Your task to perform on an android device: stop showing notifications on the lock screen Image 0: 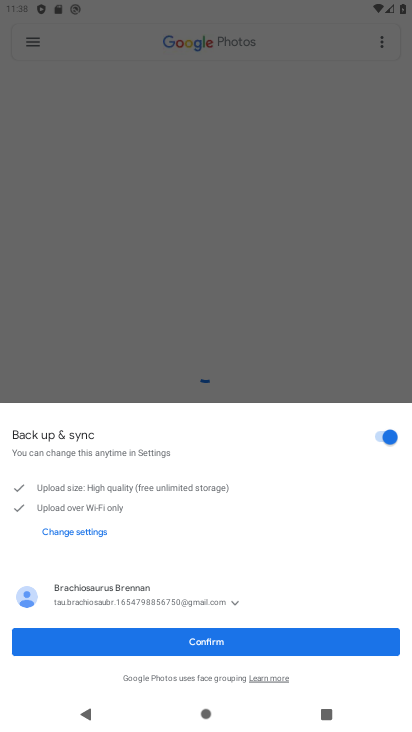
Step 0: press home button
Your task to perform on an android device: stop showing notifications on the lock screen Image 1: 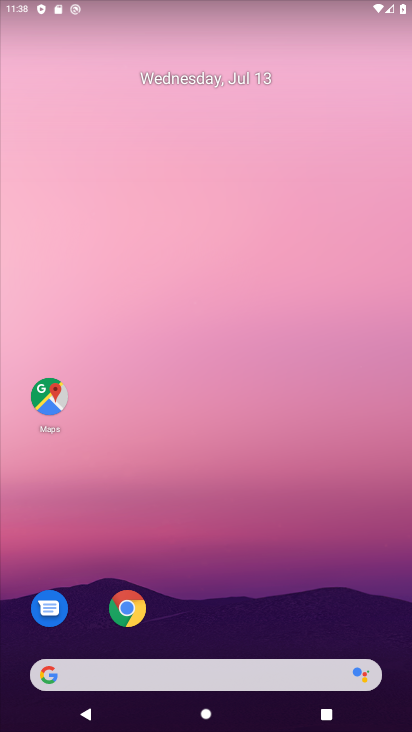
Step 1: drag from (11, 599) to (200, 184)
Your task to perform on an android device: stop showing notifications on the lock screen Image 2: 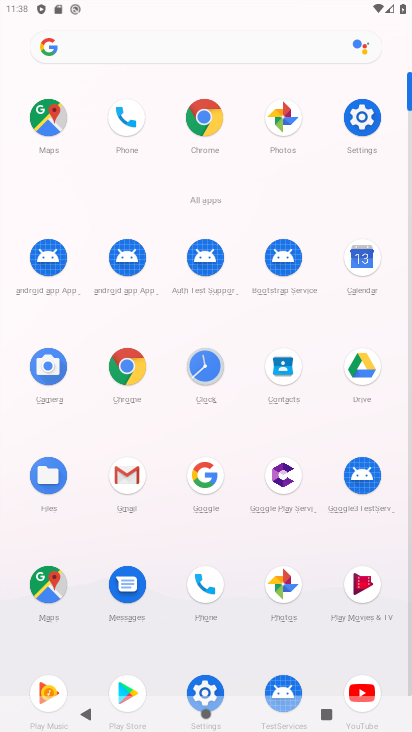
Step 2: click (351, 121)
Your task to perform on an android device: stop showing notifications on the lock screen Image 3: 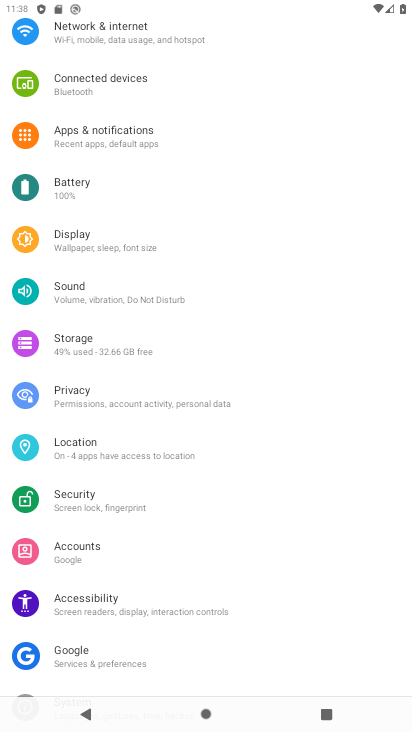
Step 3: click (128, 144)
Your task to perform on an android device: stop showing notifications on the lock screen Image 4: 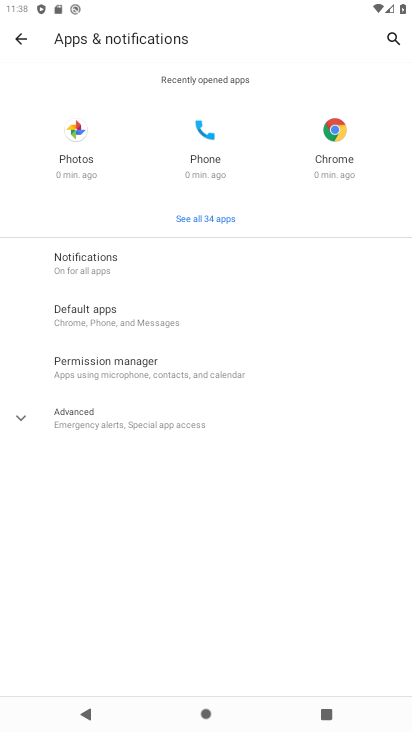
Step 4: click (130, 267)
Your task to perform on an android device: stop showing notifications on the lock screen Image 5: 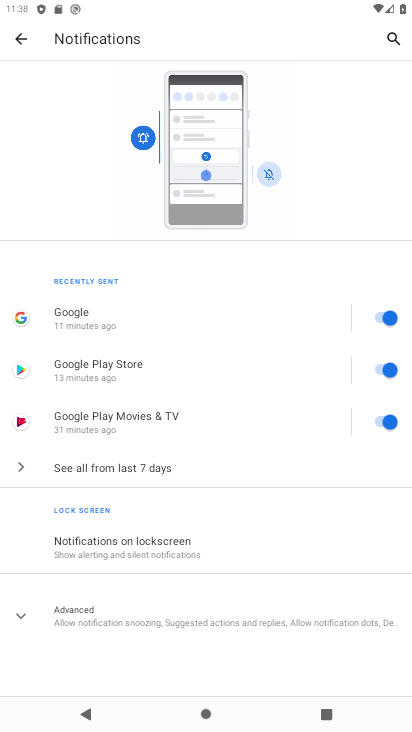
Step 5: click (129, 531)
Your task to perform on an android device: stop showing notifications on the lock screen Image 6: 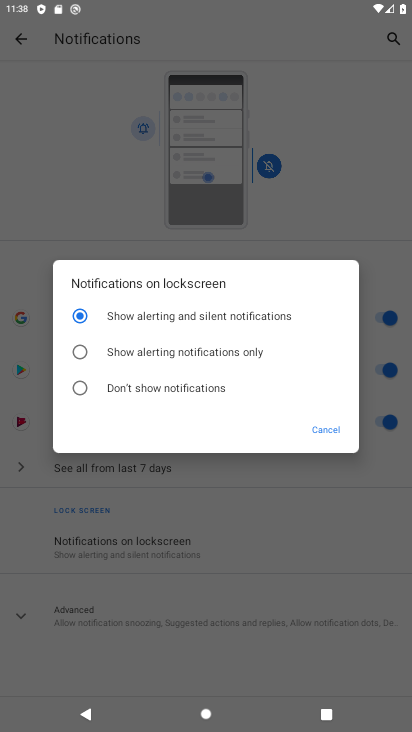
Step 6: click (162, 391)
Your task to perform on an android device: stop showing notifications on the lock screen Image 7: 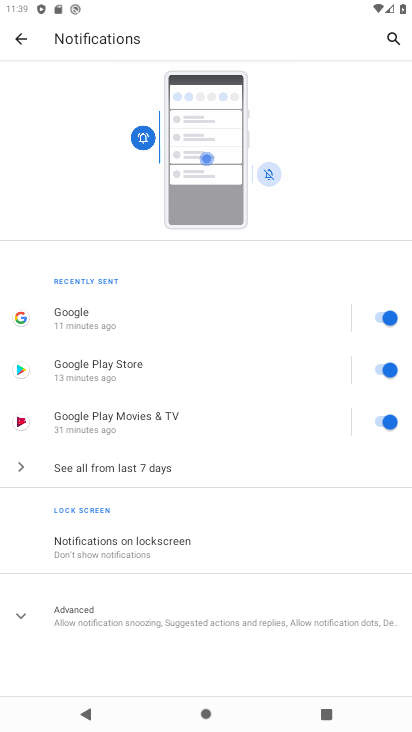
Step 7: task complete